Your task to perform on an android device: toggle notifications settings in the gmail app Image 0: 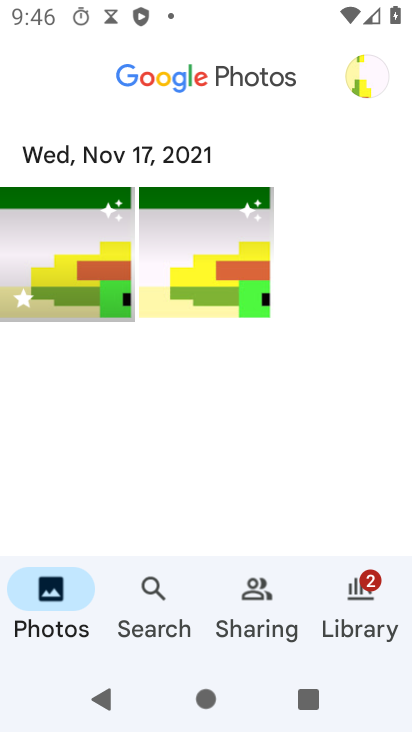
Step 0: press back button
Your task to perform on an android device: toggle notifications settings in the gmail app Image 1: 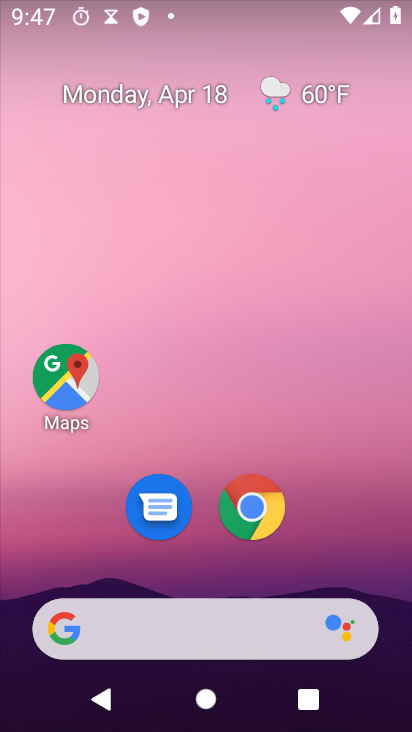
Step 1: drag from (357, 571) to (322, 62)
Your task to perform on an android device: toggle notifications settings in the gmail app Image 2: 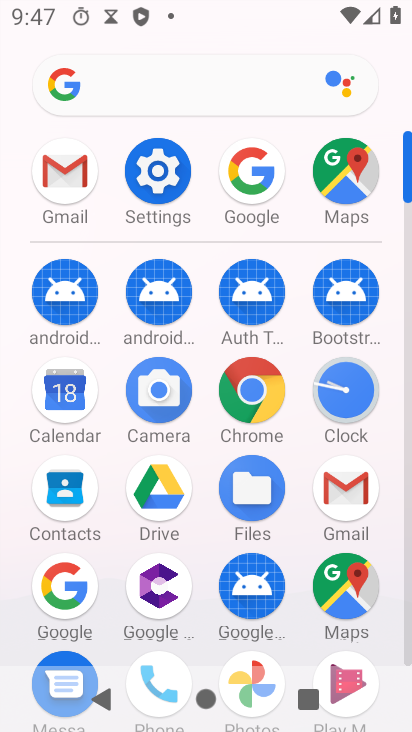
Step 2: click (343, 490)
Your task to perform on an android device: toggle notifications settings in the gmail app Image 3: 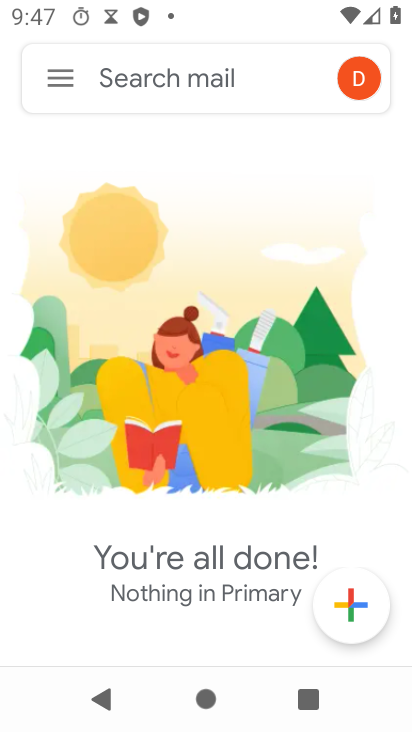
Step 3: click (51, 78)
Your task to perform on an android device: toggle notifications settings in the gmail app Image 4: 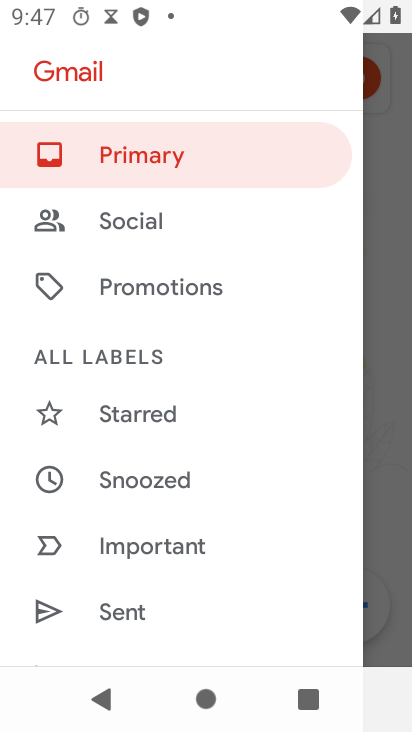
Step 4: drag from (189, 553) to (192, 386)
Your task to perform on an android device: toggle notifications settings in the gmail app Image 5: 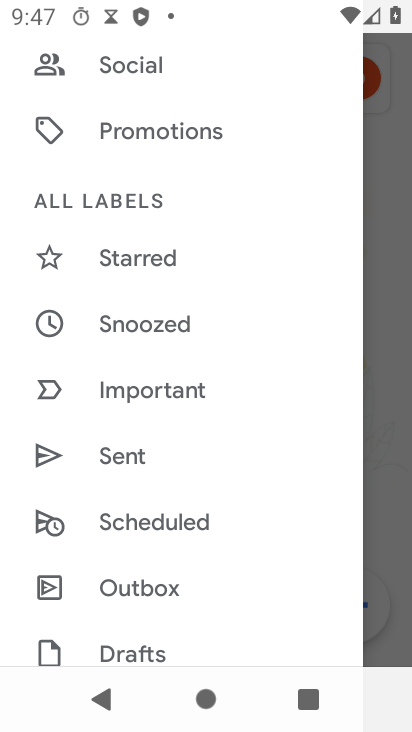
Step 5: drag from (172, 588) to (182, 416)
Your task to perform on an android device: toggle notifications settings in the gmail app Image 6: 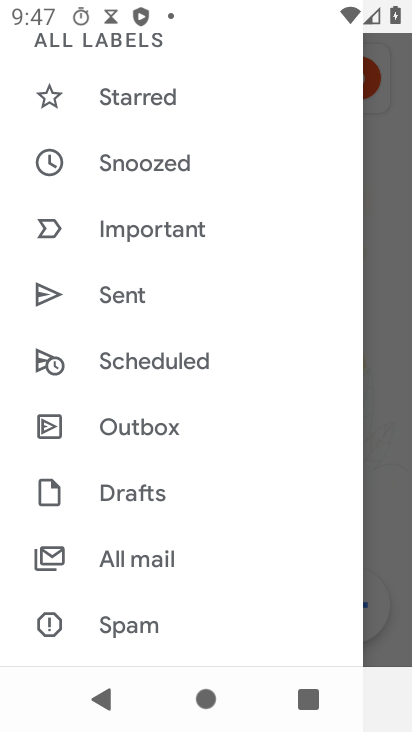
Step 6: drag from (213, 618) to (229, 427)
Your task to perform on an android device: toggle notifications settings in the gmail app Image 7: 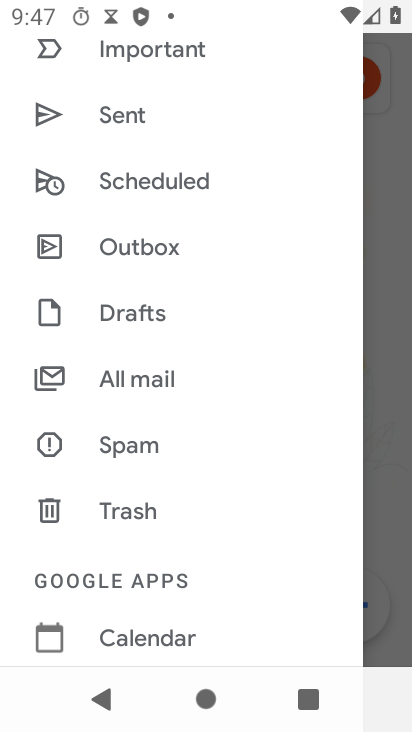
Step 7: drag from (168, 626) to (193, 460)
Your task to perform on an android device: toggle notifications settings in the gmail app Image 8: 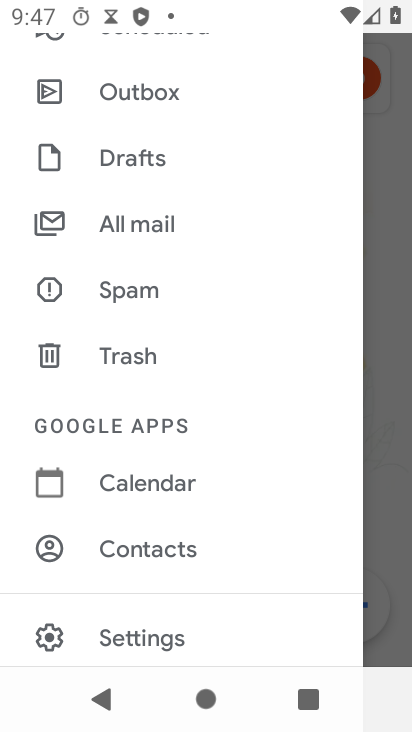
Step 8: click (188, 597)
Your task to perform on an android device: toggle notifications settings in the gmail app Image 9: 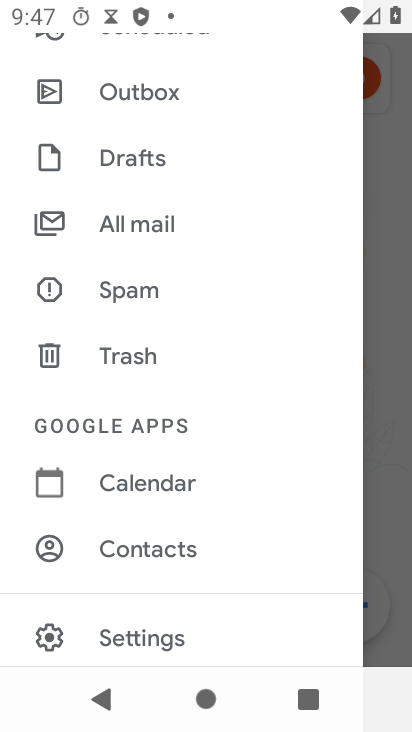
Step 9: click (194, 622)
Your task to perform on an android device: toggle notifications settings in the gmail app Image 10: 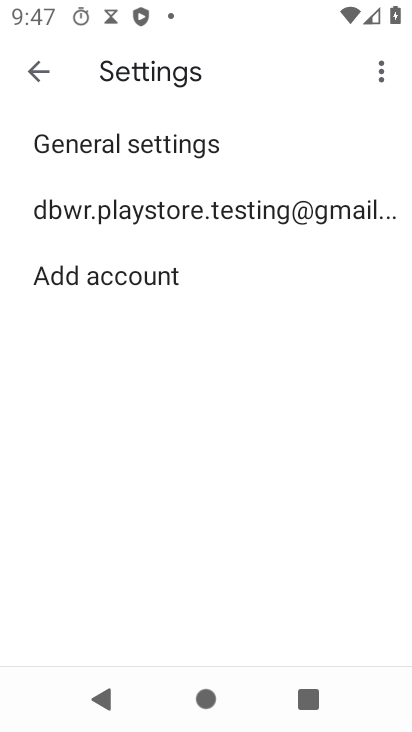
Step 10: click (80, 220)
Your task to perform on an android device: toggle notifications settings in the gmail app Image 11: 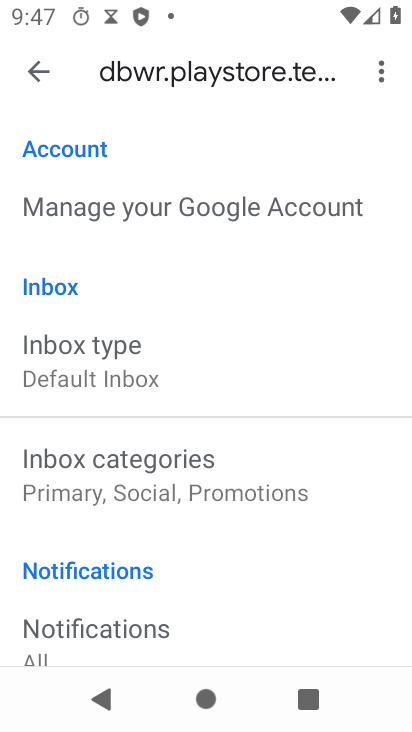
Step 11: drag from (166, 571) to (168, 484)
Your task to perform on an android device: toggle notifications settings in the gmail app Image 12: 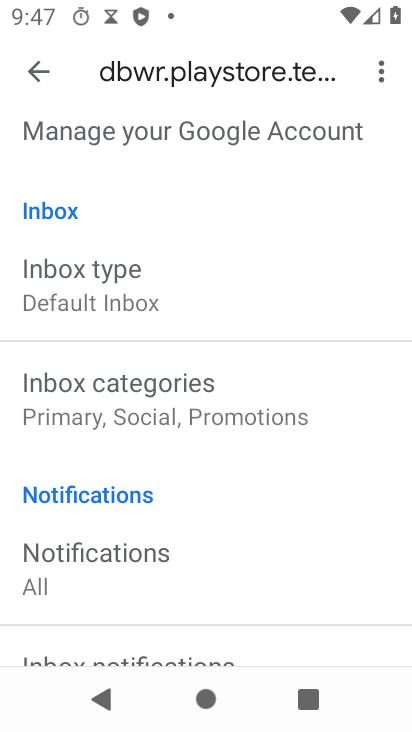
Step 12: drag from (219, 612) to (214, 455)
Your task to perform on an android device: toggle notifications settings in the gmail app Image 13: 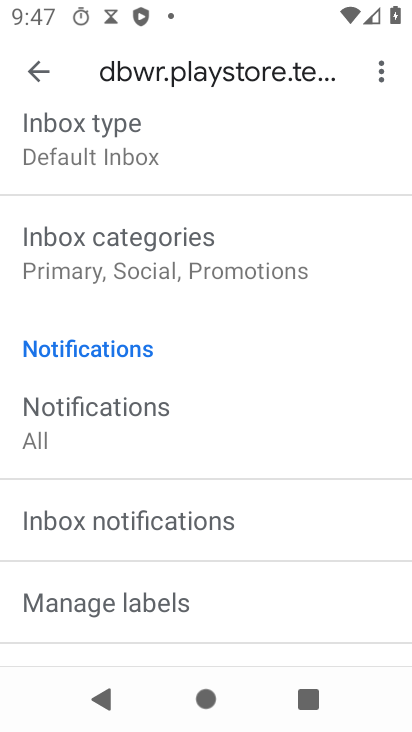
Step 13: drag from (152, 416) to (156, 201)
Your task to perform on an android device: toggle notifications settings in the gmail app Image 14: 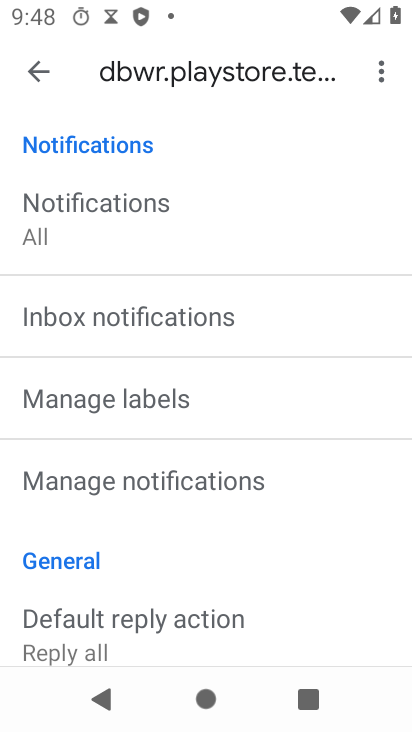
Step 14: drag from (125, 586) to (127, 496)
Your task to perform on an android device: toggle notifications settings in the gmail app Image 15: 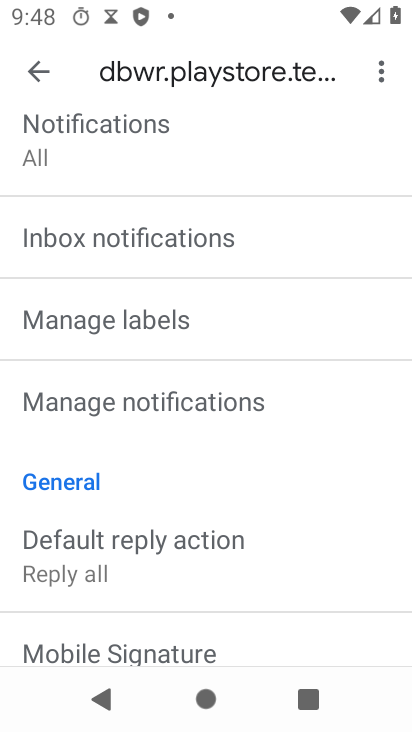
Step 15: click (133, 423)
Your task to perform on an android device: toggle notifications settings in the gmail app Image 16: 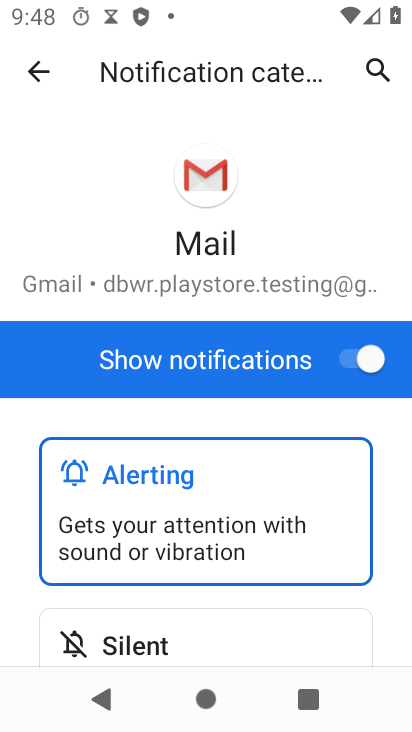
Step 16: click (344, 356)
Your task to perform on an android device: toggle notifications settings in the gmail app Image 17: 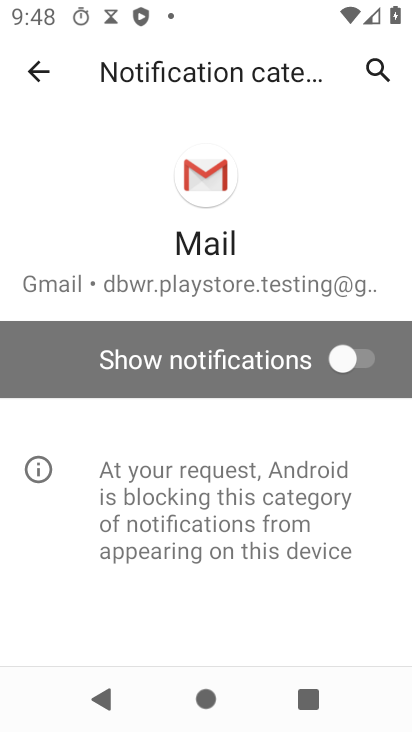
Step 17: task complete